Your task to perform on an android device: turn on the 24-hour format for clock Image 0: 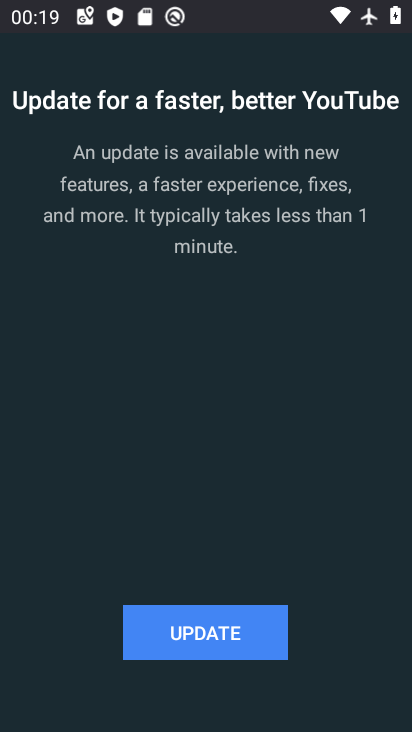
Step 0: press back button
Your task to perform on an android device: turn on the 24-hour format for clock Image 1: 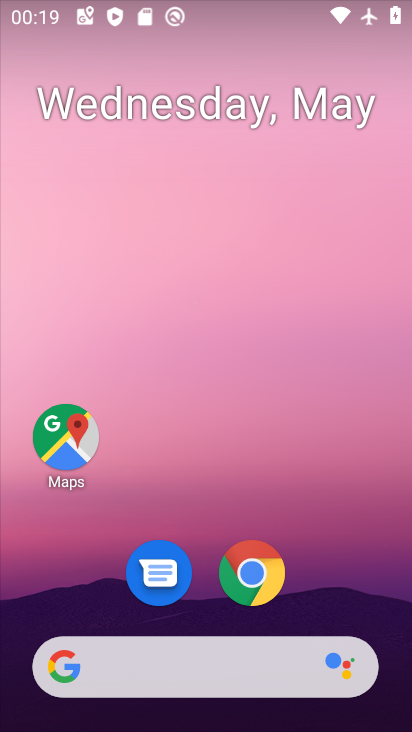
Step 1: drag from (331, 586) to (341, 199)
Your task to perform on an android device: turn on the 24-hour format for clock Image 2: 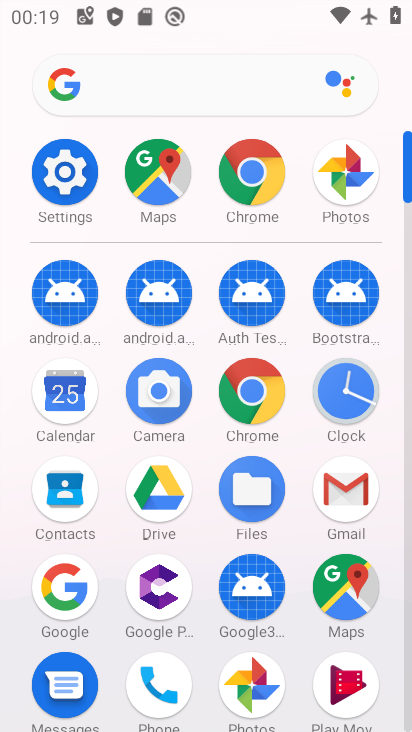
Step 2: click (358, 396)
Your task to perform on an android device: turn on the 24-hour format for clock Image 3: 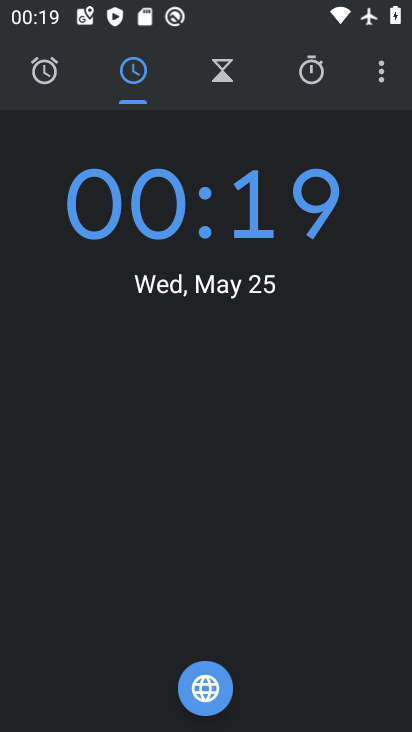
Step 3: click (374, 66)
Your task to perform on an android device: turn on the 24-hour format for clock Image 4: 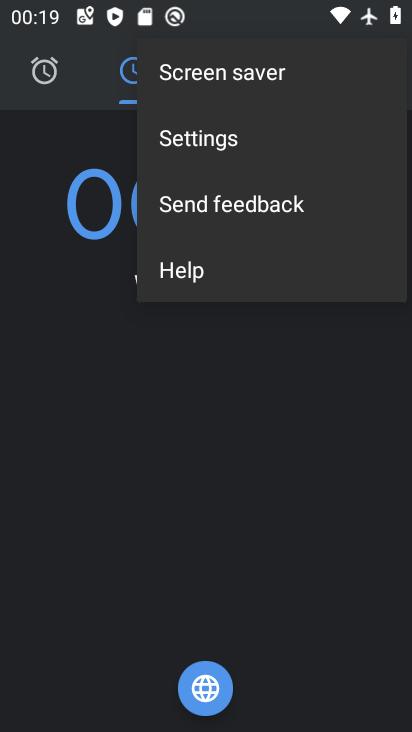
Step 4: click (224, 141)
Your task to perform on an android device: turn on the 24-hour format for clock Image 5: 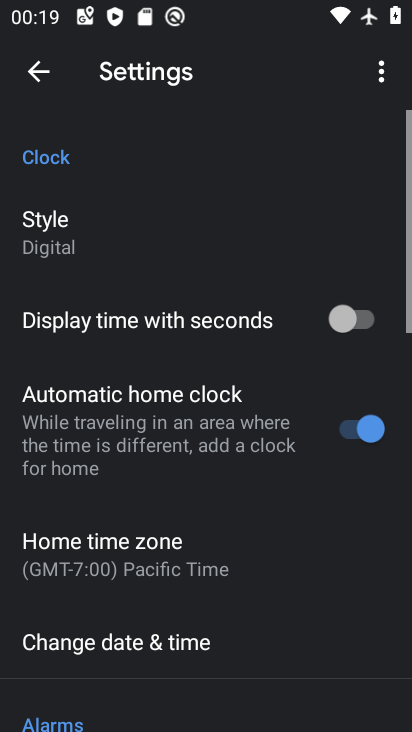
Step 5: drag from (225, 621) to (214, 238)
Your task to perform on an android device: turn on the 24-hour format for clock Image 6: 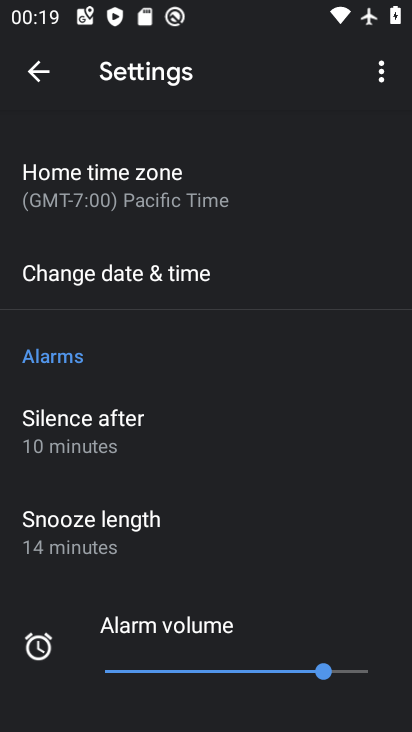
Step 6: drag from (217, 558) to (222, 304)
Your task to perform on an android device: turn on the 24-hour format for clock Image 7: 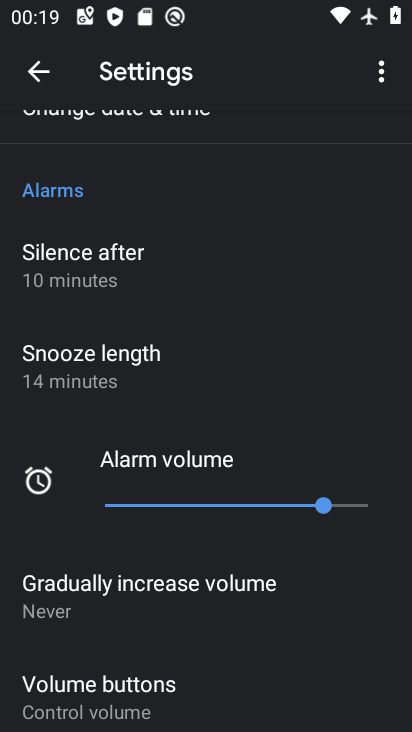
Step 7: click (230, 627)
Your task to perform on an android device: turn on the 24-hour format for clock Image 8: 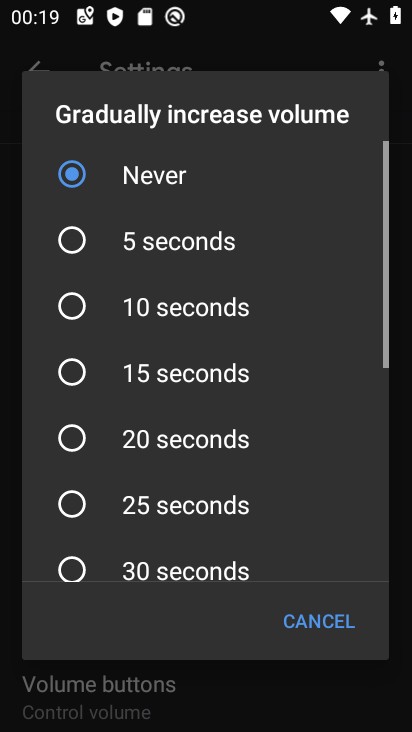
Step 8: click (114, 117)
Your task to perform on an android device: turn on the 24-hour format for clock Image 9: 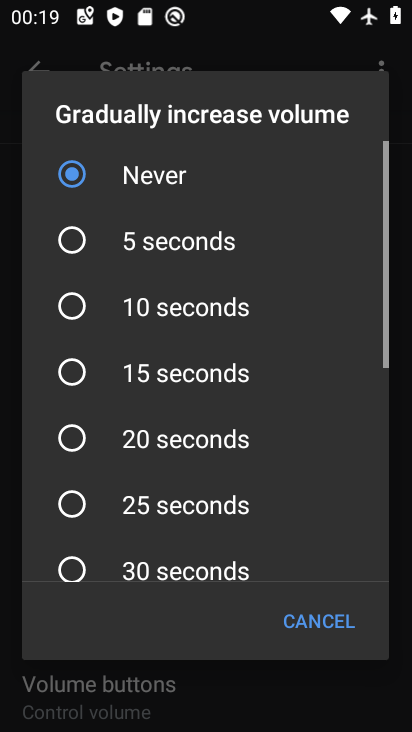
Step 9: click (114, 117)
Your task to perform on an android device: turn on the 24-hour format for clock Image 10: 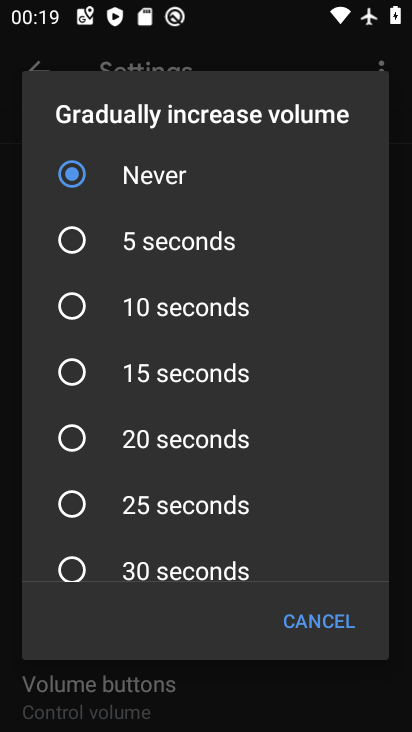
Step 10: click (315, 625)
Your task to perform on an android device: turn on the 24-hour format for clock Image 11: 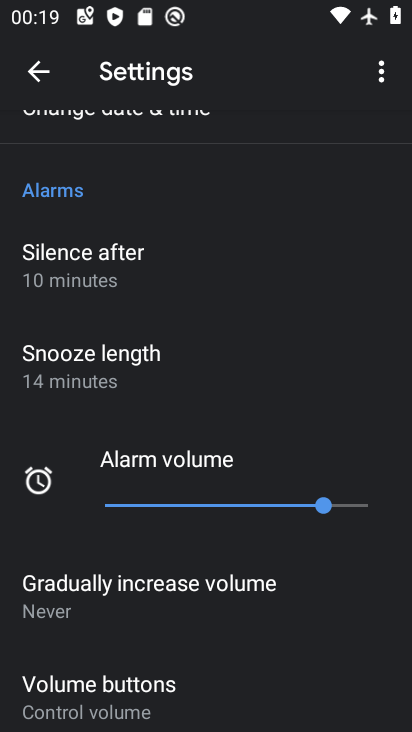
Step 11: click (177, 109)
Your task to perform on an android device: turn on the 24-hour format for clock Image 12: 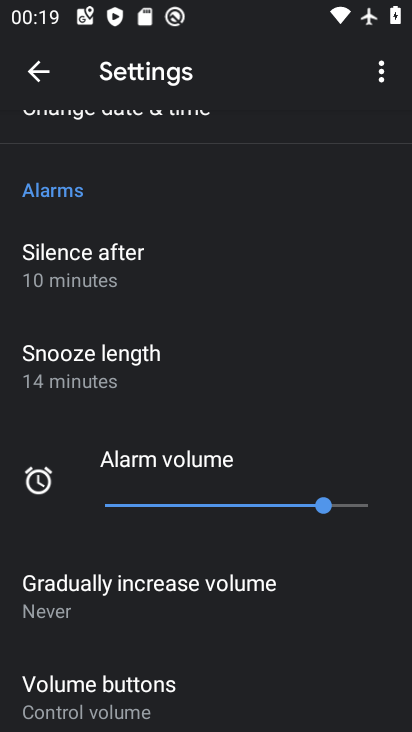
Step 12: click (181, 114)
Your task to perform on an android device: turn on the 24-hour format for clock Image 13: 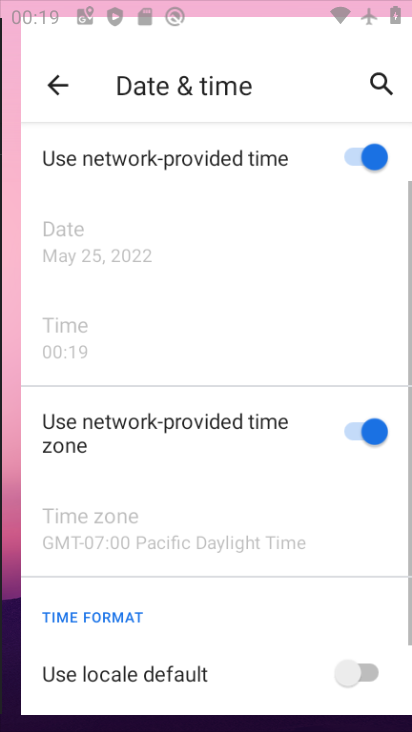
Step 13: click (188, 123)
Your task to perform on an android device: turn on the 24-hour format for clock Image 14: 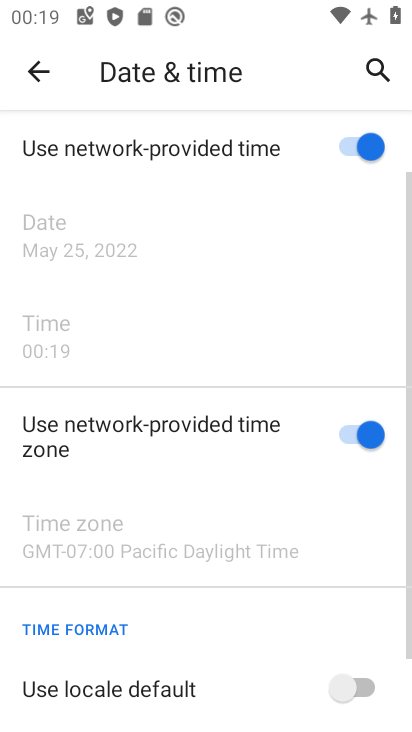
Step 14: task complete